Your task to perform on an android device: Add "macbook air" to the cart on walmart.com Image 0: 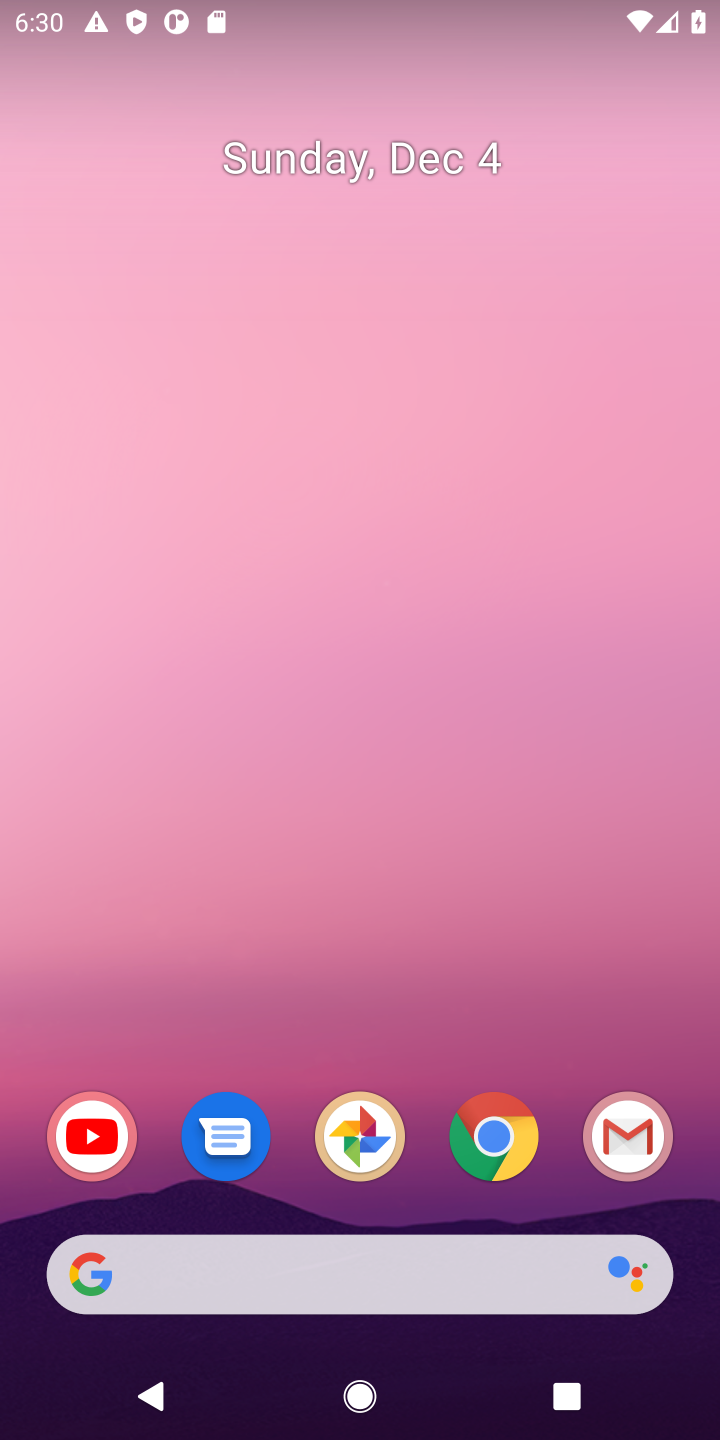
Step 0: click (498, 1115)
Your task to perform on an android device: Add "macbook air" to the cart on walmart.com Image 1: 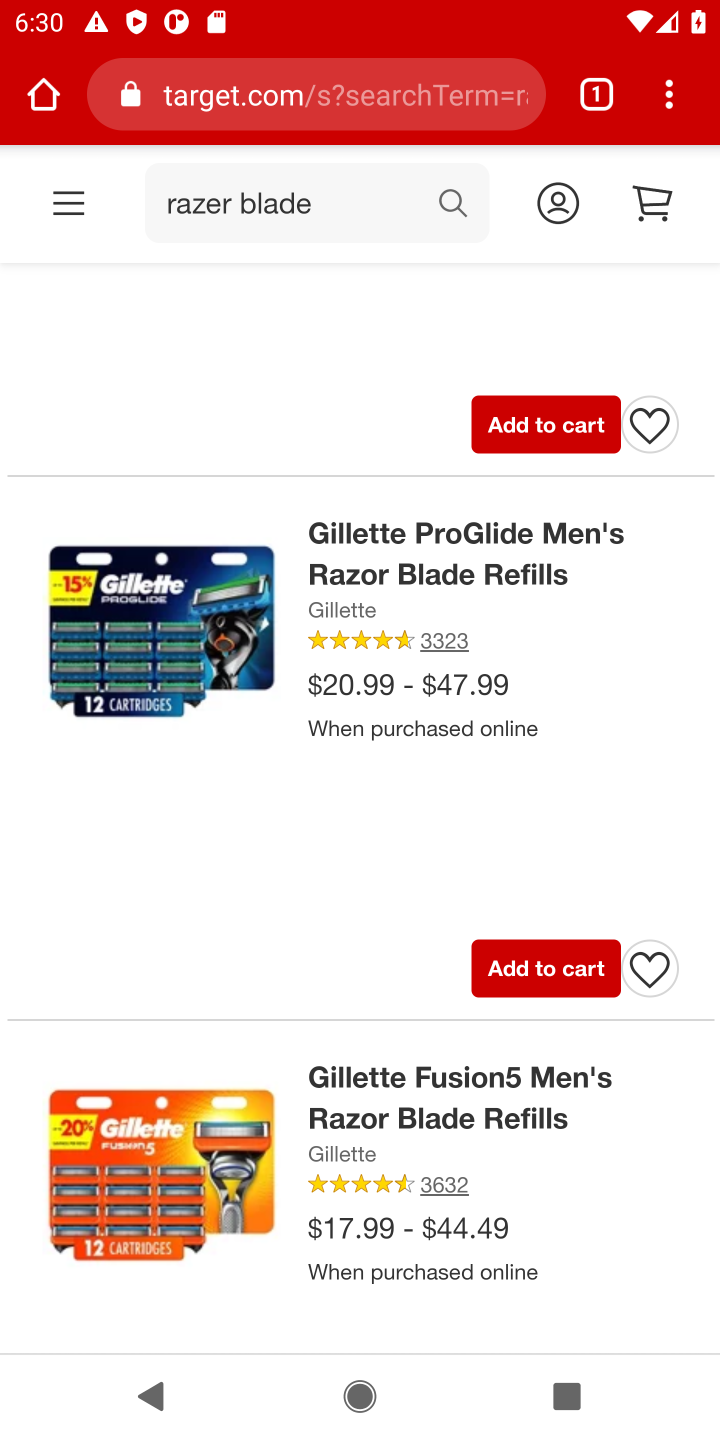
Step 1: click (289, 94)
Your task to perform on an android device: Add "macbook air" to the cart on walmart.com Image 2: 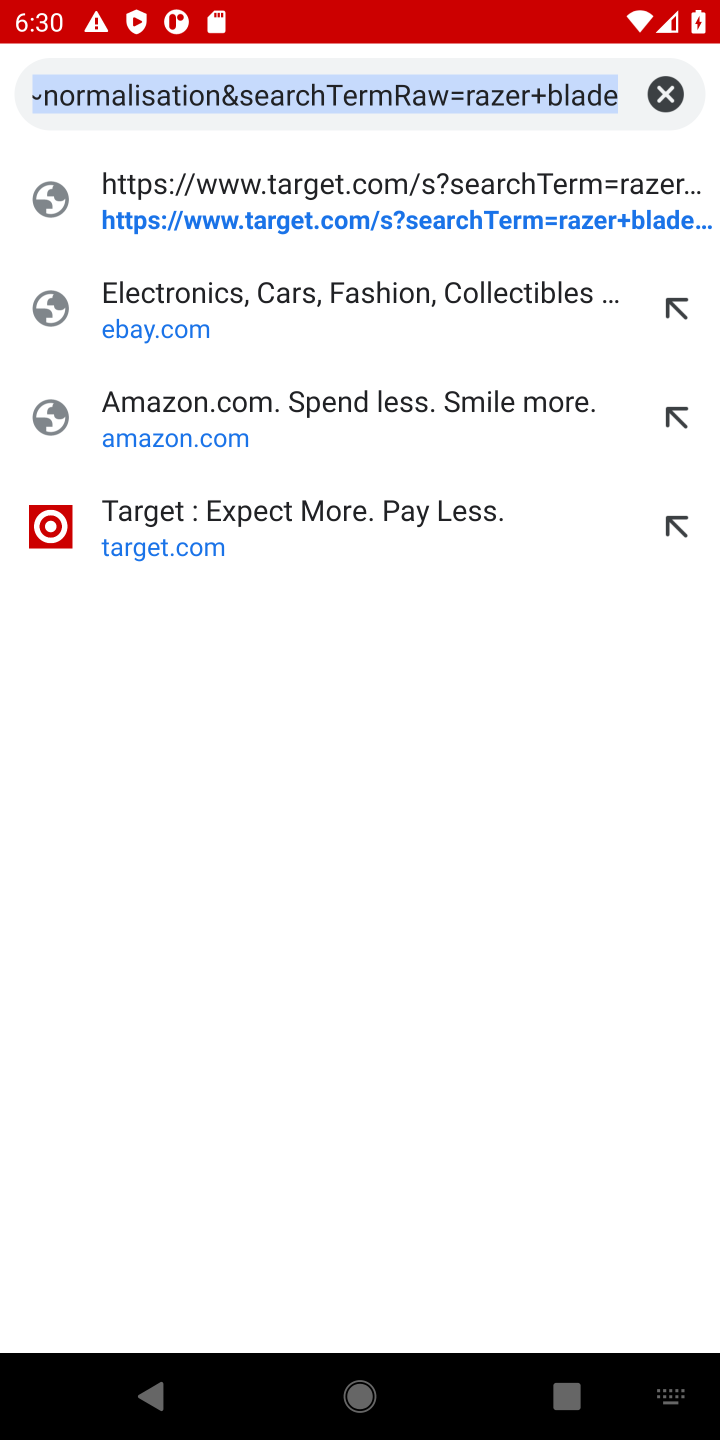
Step 2: type "walmart.com"
Your task to perform on an android device: Add "macbook air" to the cart on walmart.com Image 3: 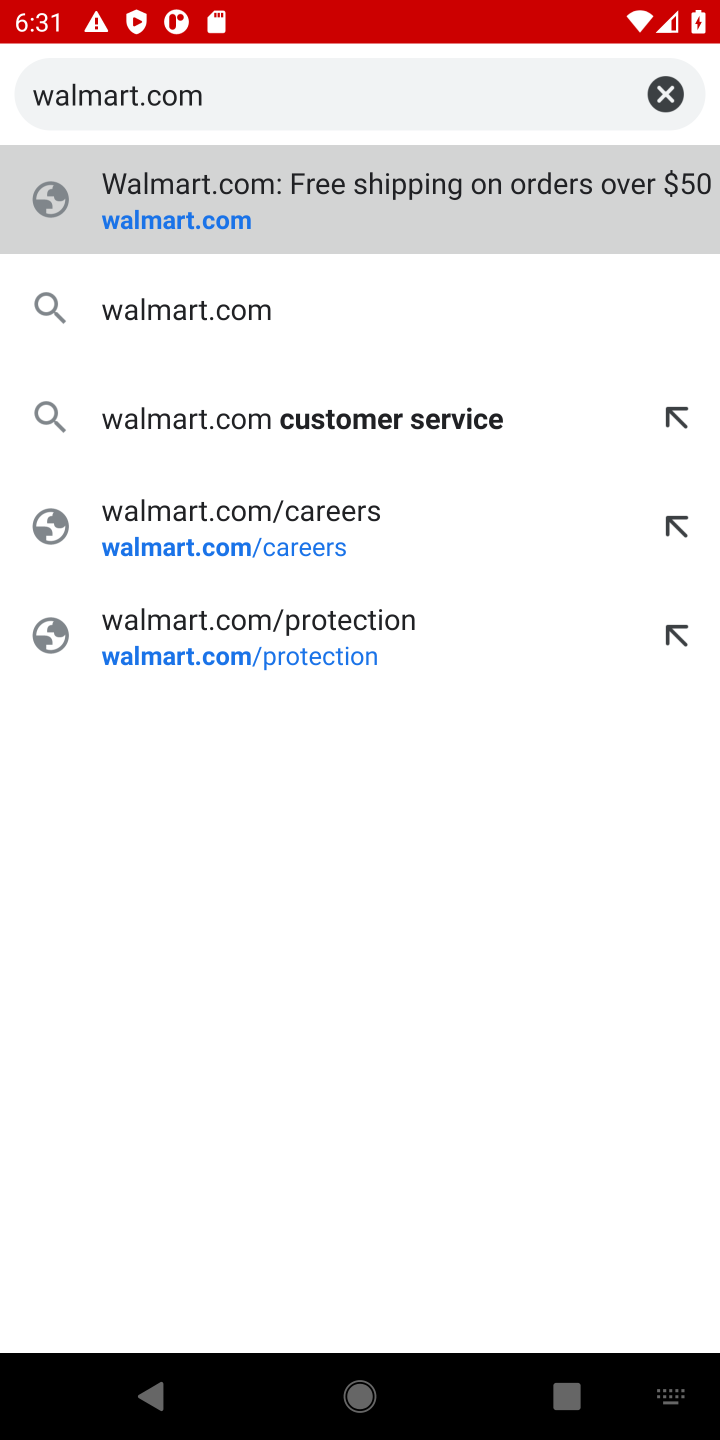
Step 3: click (151, 214)
Your task to perform on an android device: Add "macbook air" to the cart on walmart.com Image 4: 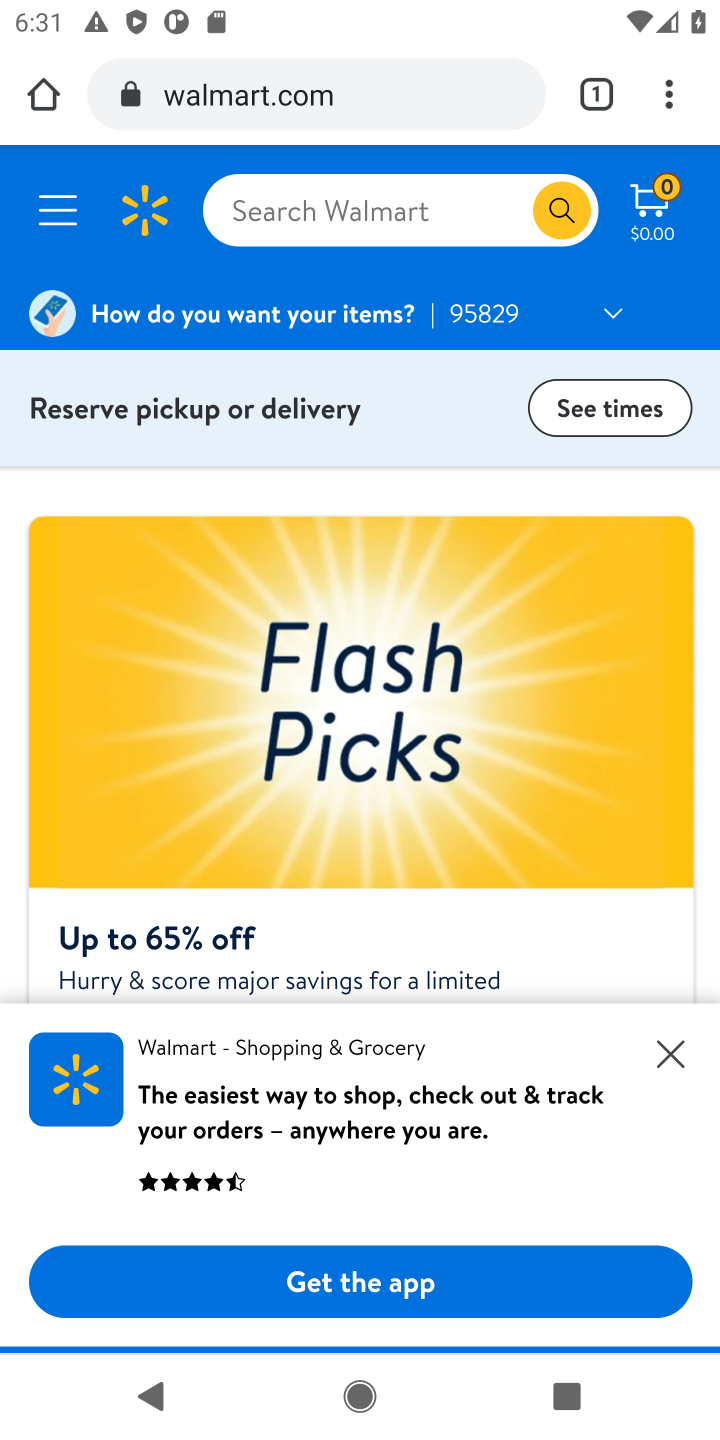
Step 4: click (383, 203)
Your task to perform on an android device: Add "macbook air" to the cart on walmart.com Image 5: 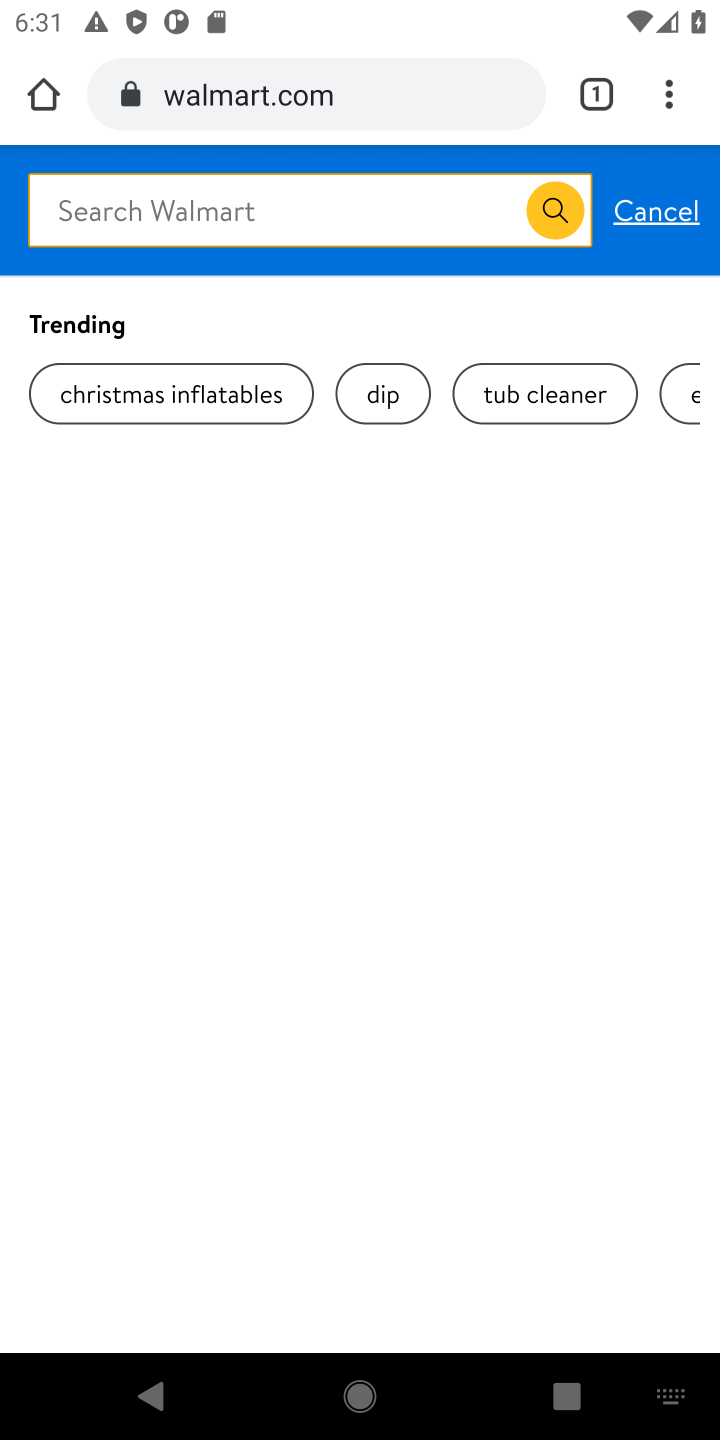
Step 5: type "macbook air"
Your task to perform on an android device: Add "macbook air" to the cart on walmart.com Image 6: 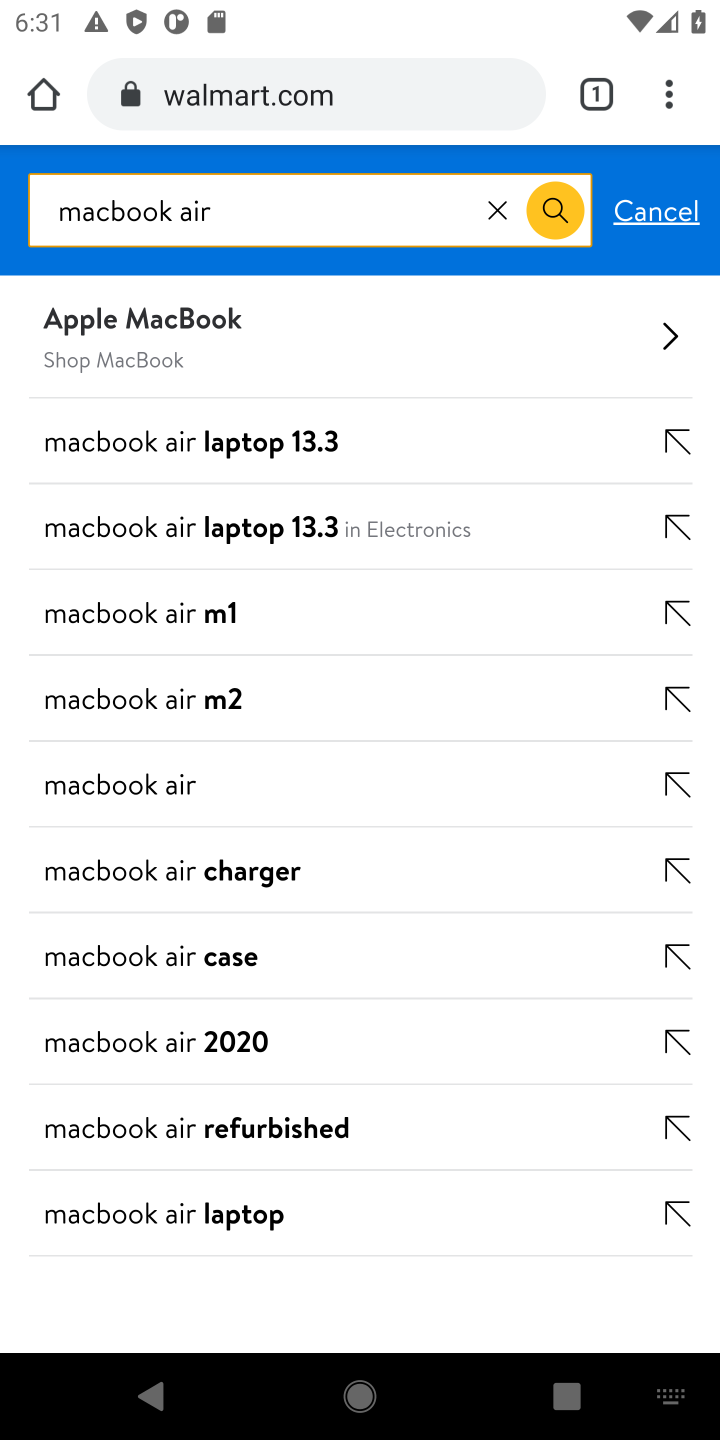
Step 6: click (102, 807)
Your task to perform on an android device: Add "macbook air" to the cart on walmart.com Image 7: 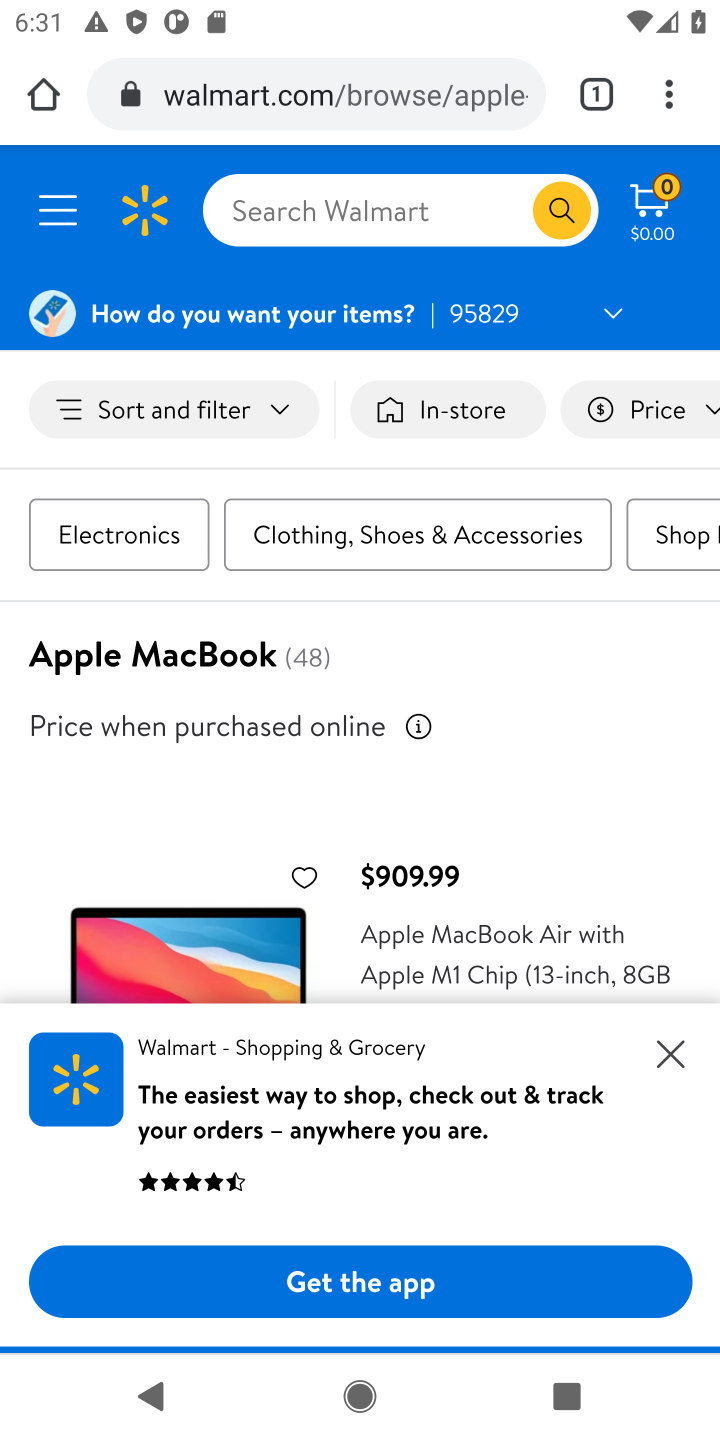
Step 7: drag from (451, 811) to (450, 423)
Your task to perform on an android device: Add "macbook air" to the cart on walmart.com Image 8: 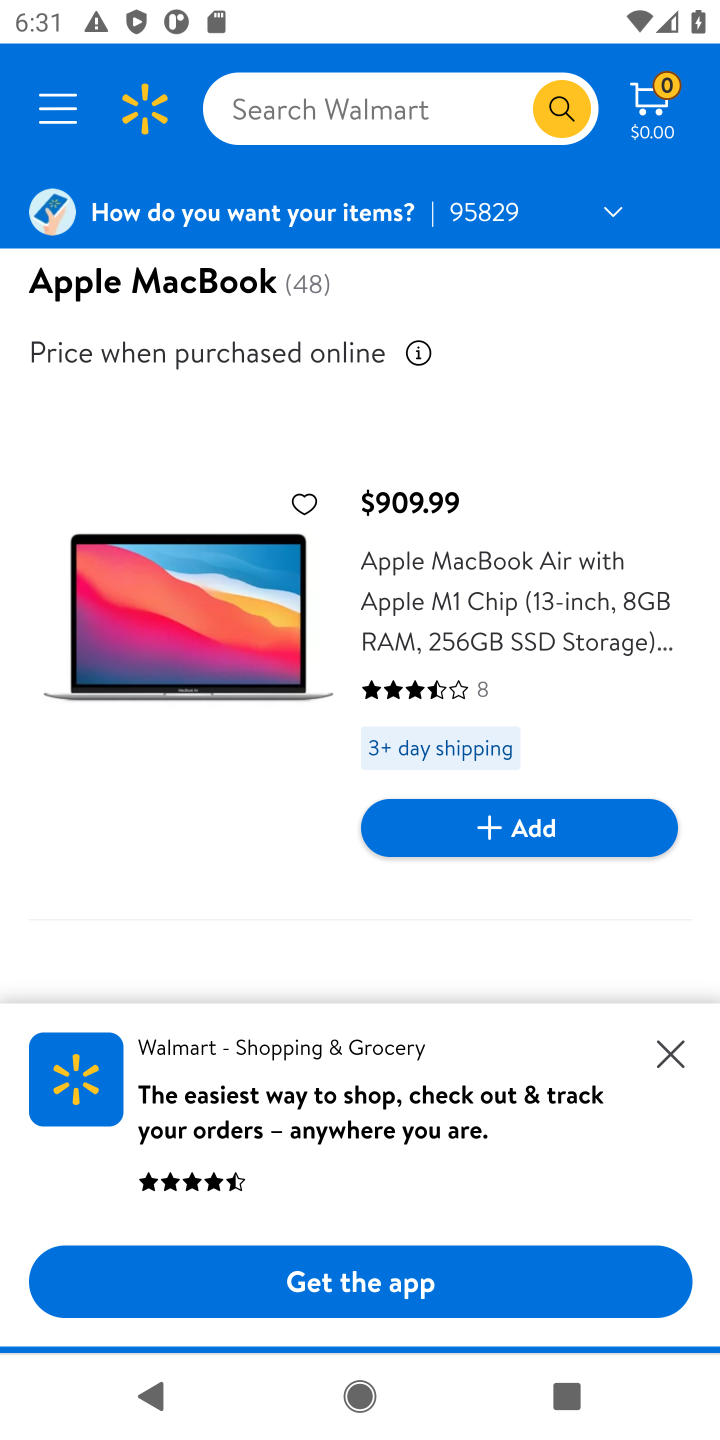
Step 8: click (679, 1048)
Your task to perform on an android device: Add "macbook air" to the cart on walmart.com Image 9: 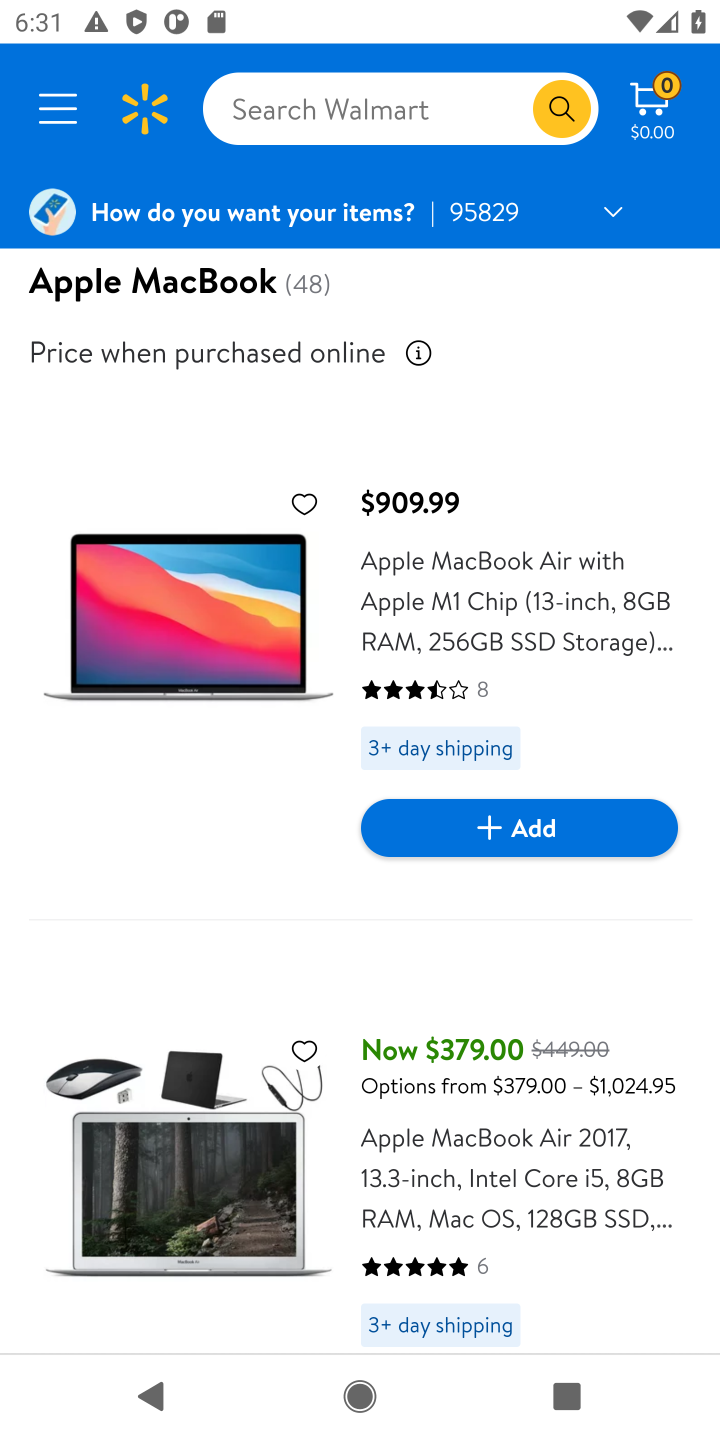
Step 9: click (514, 832)
Your task to perform on an android device: Add "macbook air" to the cart on walmart.com Image 10: 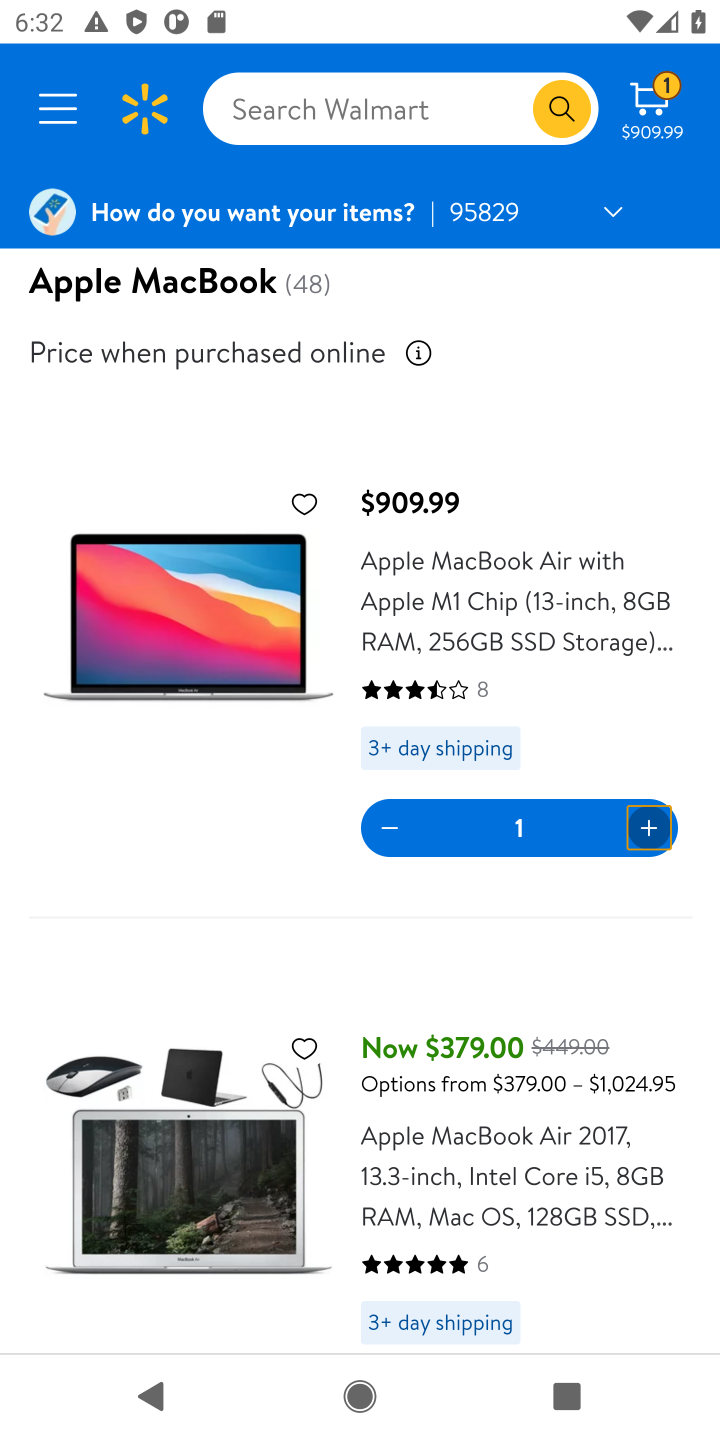
Step 10: task complete